Your task to perform on an android device: empty trash in the gmail app Image 0: 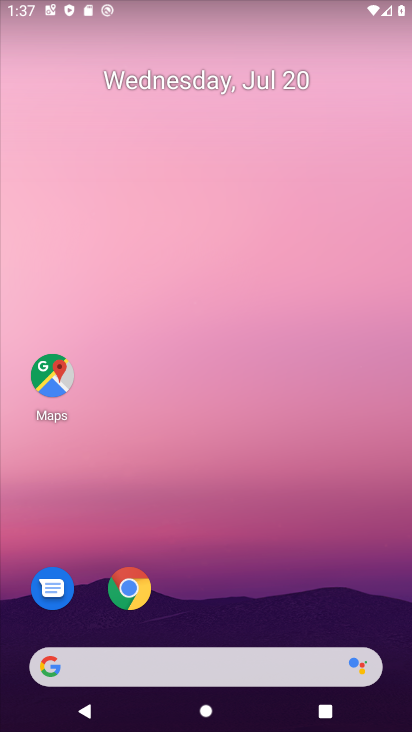
Step 0: drag from (395, 646) to (264, 9)
Your task to perform on an android device: empty trash in the gmail app Image 1: 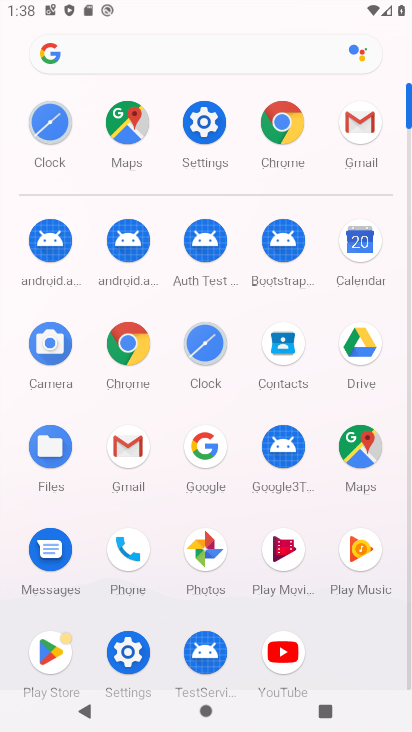
Step 1: click (136, 433)
Your task to perform on an android device: empty trash in the gmail app Image 2: 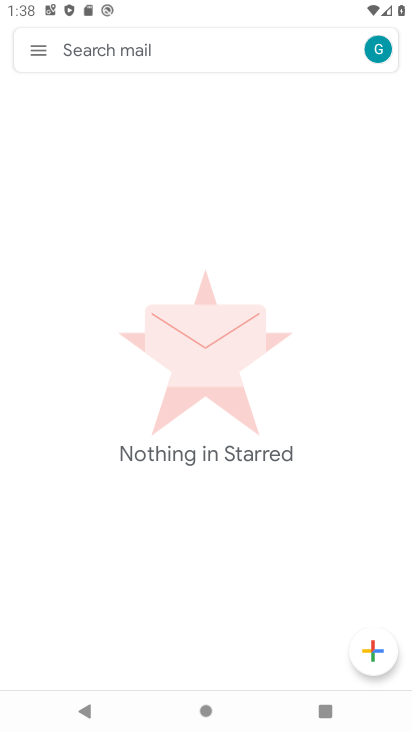
Step 2: click (35, 47)
Your task to perform on an android device: empty trash in the gmail app Image 3: 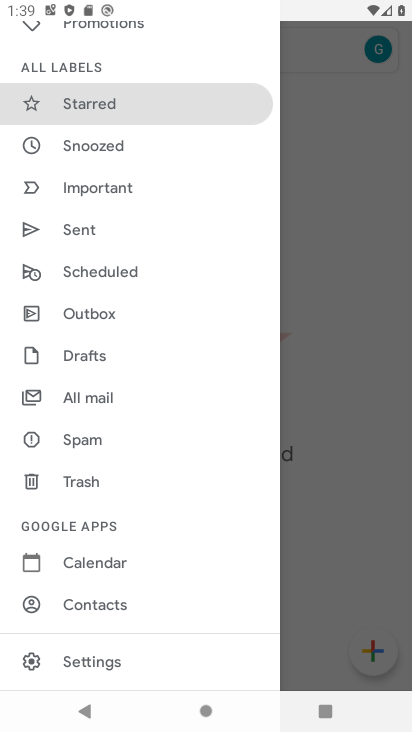
Step 3: click (91, 486)
Your task to perform on an android device: empty trash in the gmail app Image 4: 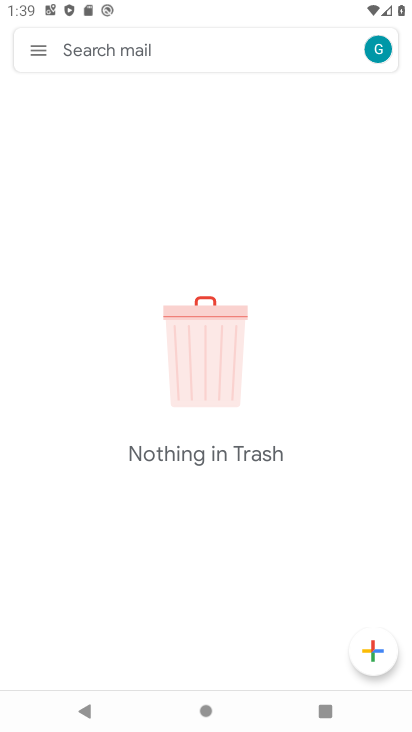
Step 4: task complete